Your task to perform on an android device: open the mobile data screen to see how much data has been used Image 0: 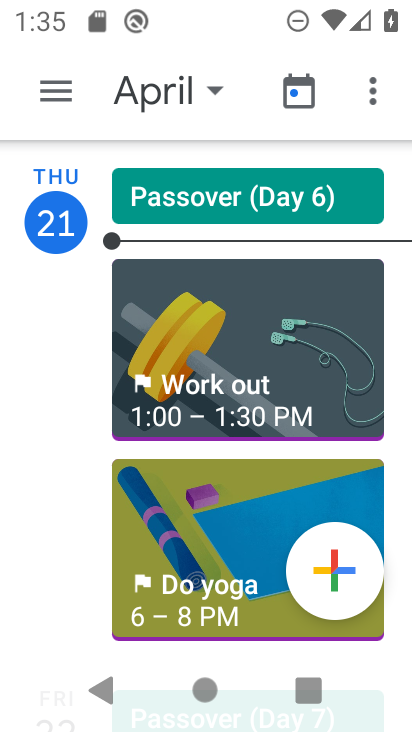
Step 0: press home button
Your task to perform on an android device: open the mobile data screen to see how much data has been used Image 1: 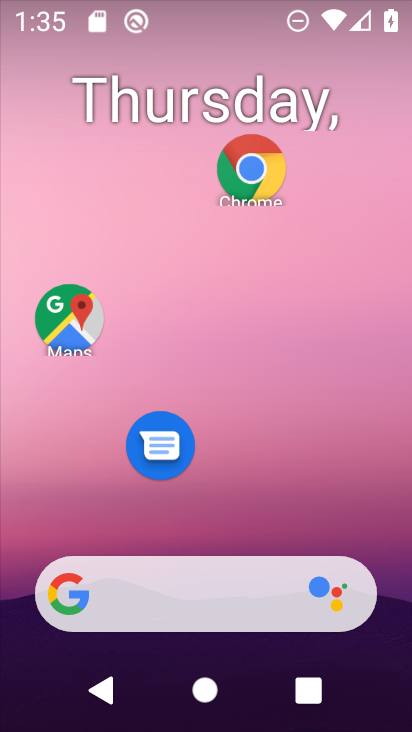
Step 1: drag from (239, 621) to (232, 200)
Your task to perform on an android device: open the mobile data screen to see how much data has been used Image 2: 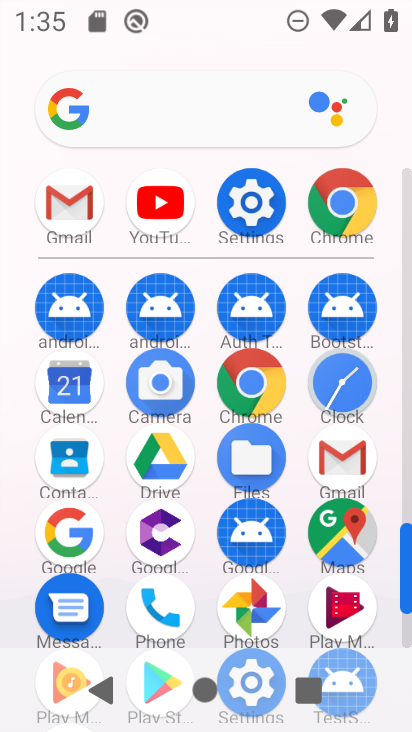
Step 2: click (230, 200)
Your task to perform on an android device: open the mobile data screen to see how much data has been used Image 3: 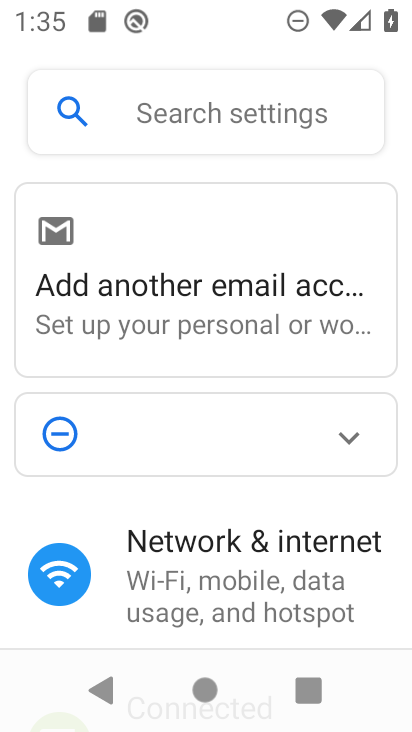
Step 3: click (223, 119)
Your task to perform on an android device: open the mobile data screen to see how much data has been used Image 4: 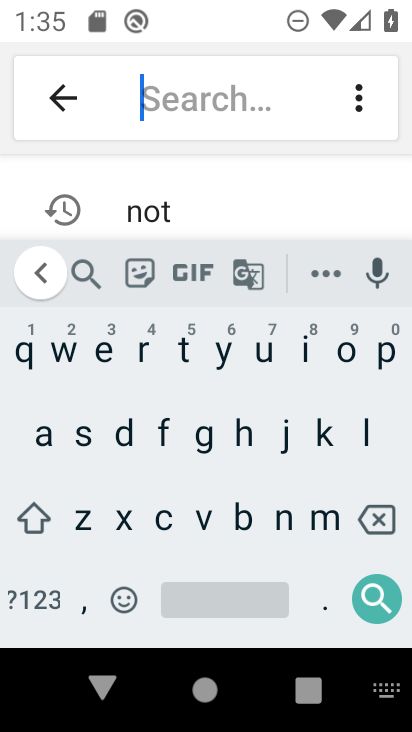
Step 4: click (120, 425)
Your task to perform on an android device: open the mobile data screen to see how much data has been used Image 5: 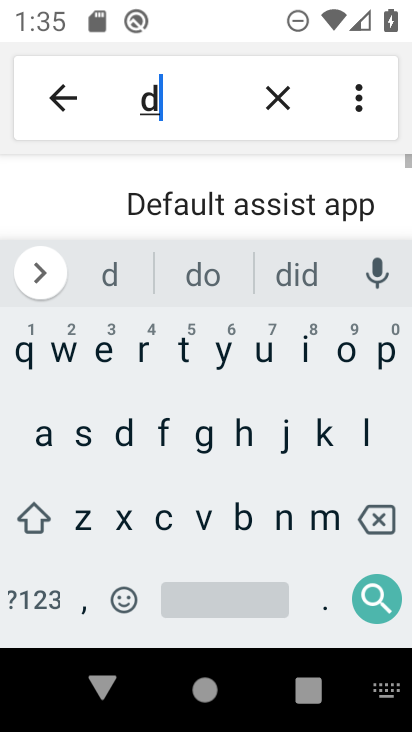
Step 5: click (43, 432)
Your task to perform on an android device: open the mobile data screen to see how much data has been used Image 6: 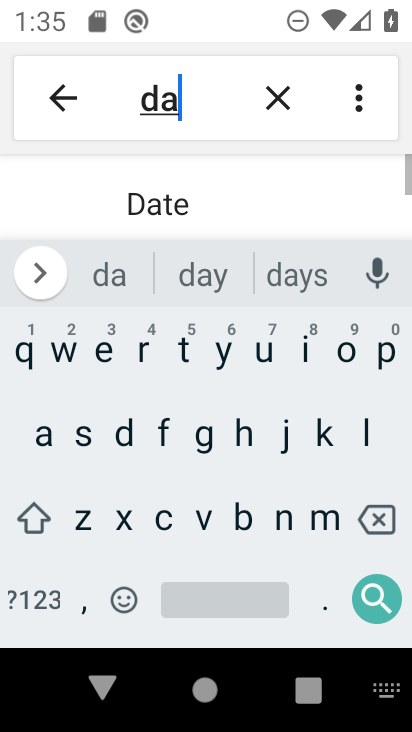
Step 6: click (187, 354)
Your task to perform on an android device: open the mobile data screen to see how much data has been used Image 7: 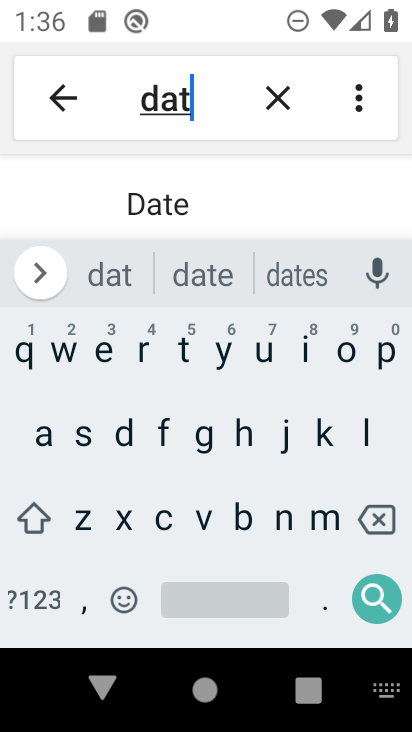
Step 7: click (40, 431)
Your task to perform on an android device: open the mobile data screen to see how much data has been used Image 8: 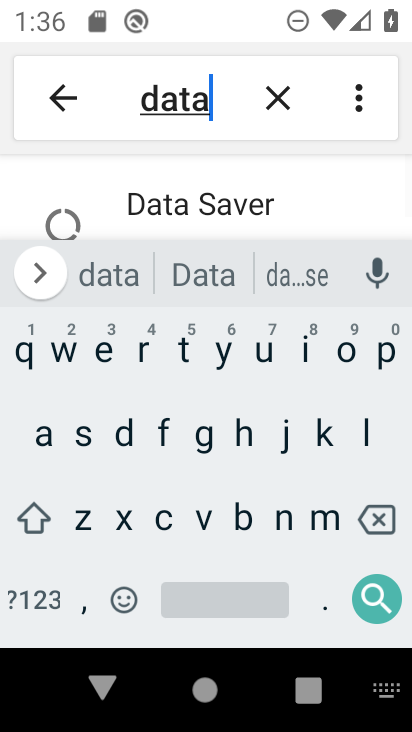
Step 8: click (225, 595)
Your task to perform on an android device: open the mobile data screen to see how much data has been used Image 9: 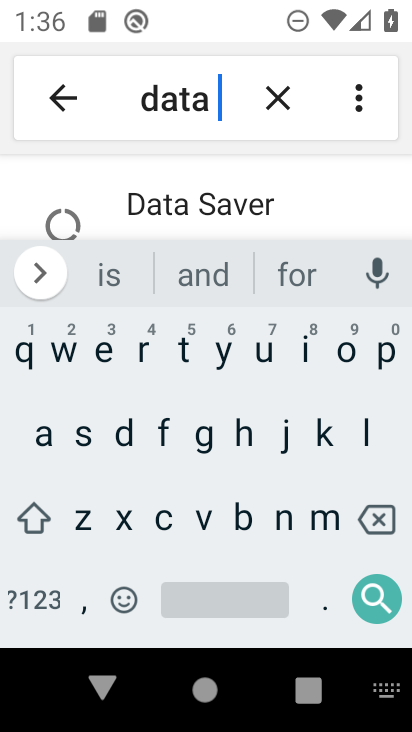
Step 9: click (263, 359)
Your task to perform on an android device: open the mobile data screen to see how much data has been used Image 10: 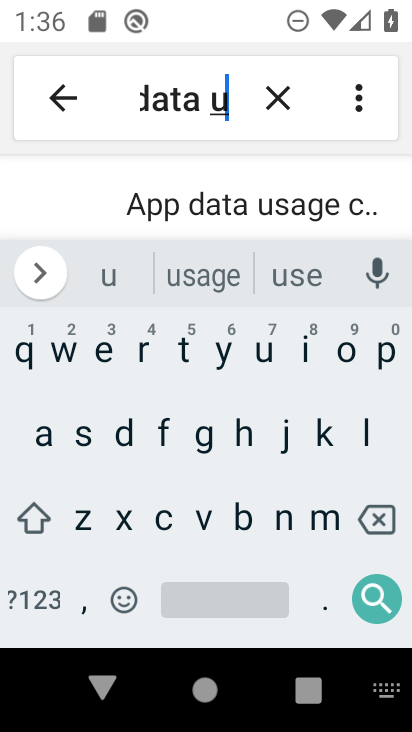
Step 10: press back button
Your task to perform on an android device: open the mobile data screen to see how much data has been used Image 11: 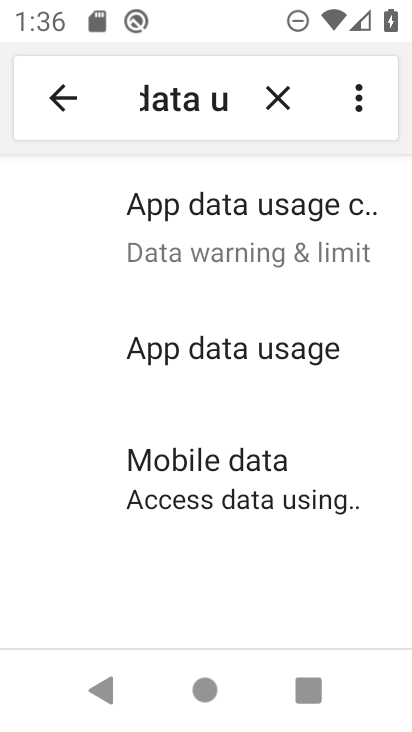
Step 11: click (205, 467)
Your task to perform on an android device: open the mobile data screen to see how much data has been used Image 12: 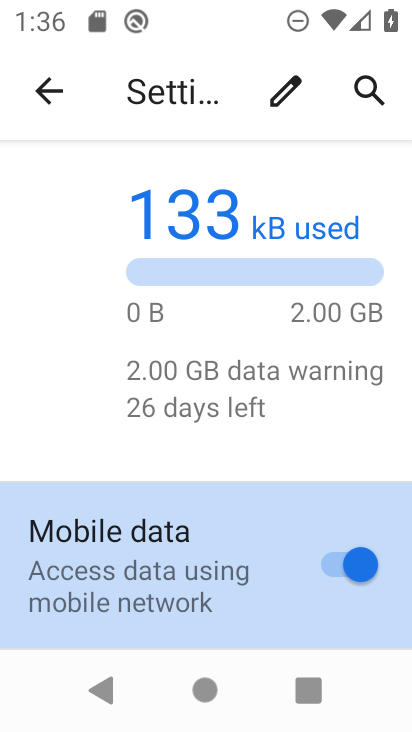
Step 12: task complete